Your task to perform on an android device: remove spam from my inbox in the gmail app Image 0: 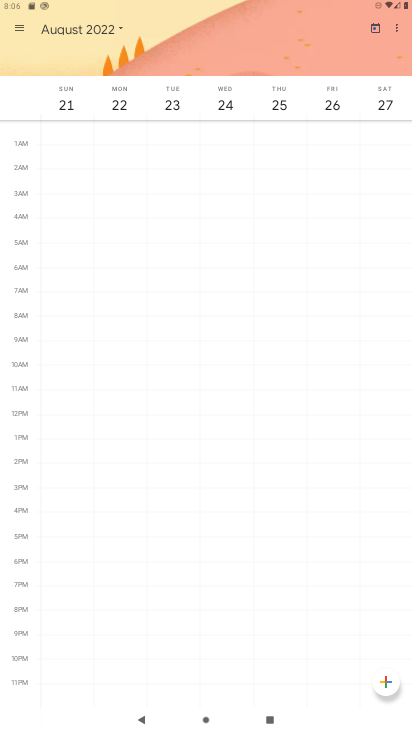
Step 0: press home button
Your task to perform on an android device: remove spam from my inbox in the gmail app Image 1: 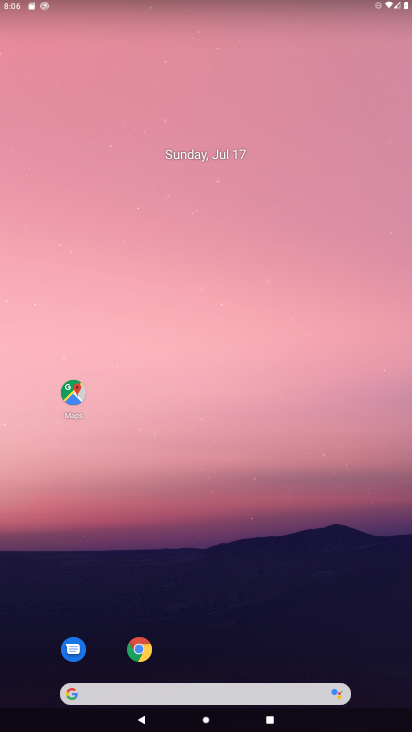
Step 1: drag from (208, 666) to (160, 31)
Your task to perform on an android device: remove spam from my inbox in the gmail app Image 2: 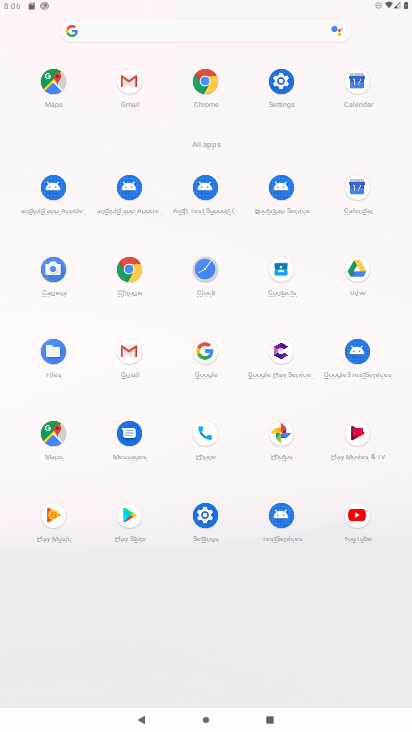
Step 2: click (127, 350)
Your task to perform on an android device: remove spam from my inbox in the gmail app Image 3: 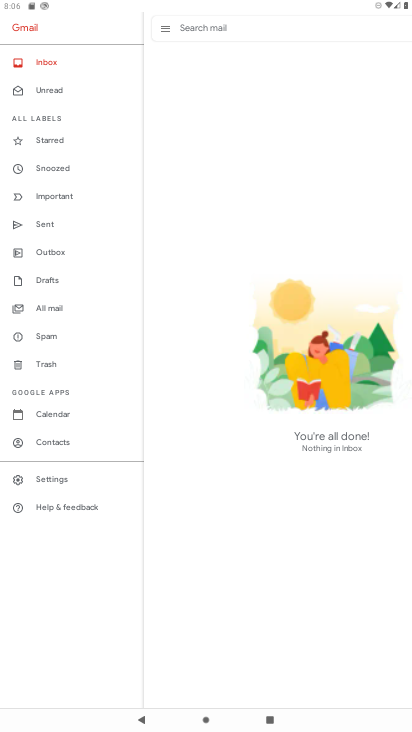
Step 3: click (39, 484)
Your task to perform on an android device: remove spam from my inbox in the gmail app Image 4: 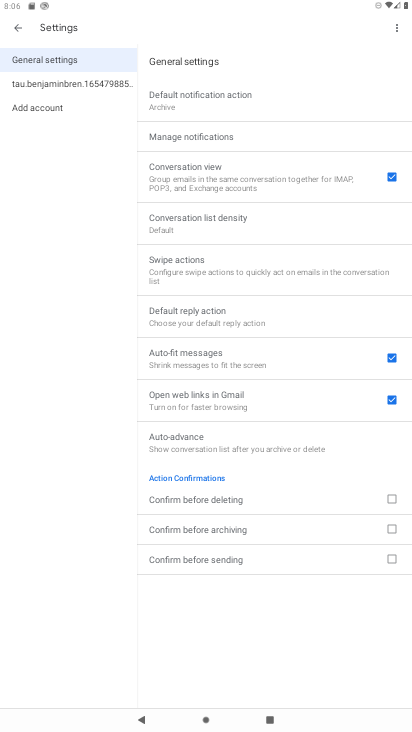
Step 4: click (18, 22)
Your task to perform on an android device: remove spam from my inbox in the gmail app Image 5: 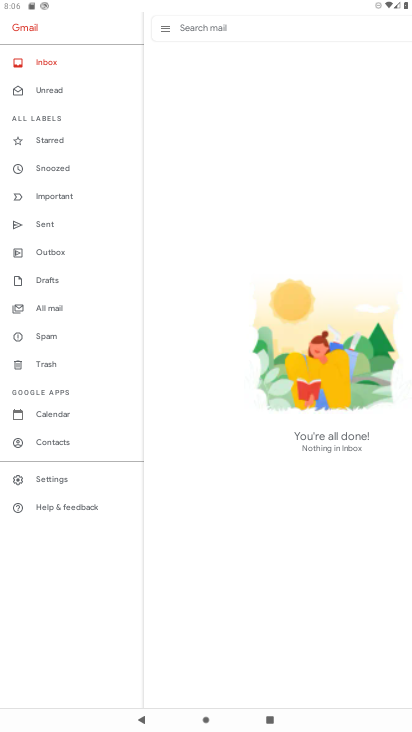
Step 5: click (41, 338)
Your task to perform on an android device: remove spam from my inbox in the gmail app Image 6: 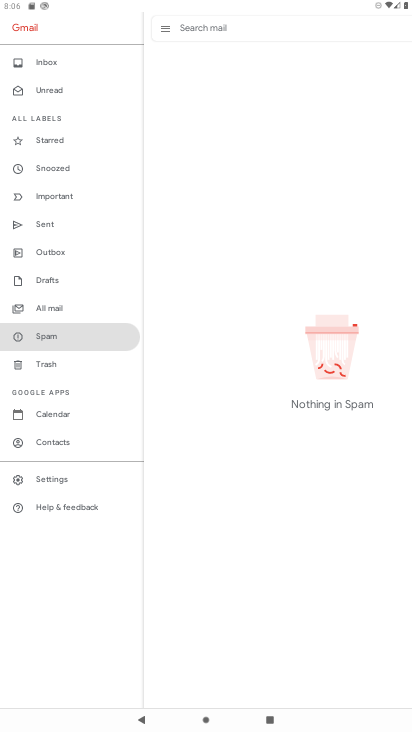
Step 6: task complete